Your task to perform on an android device: Show me productivity apps on the Play Store Image 0: 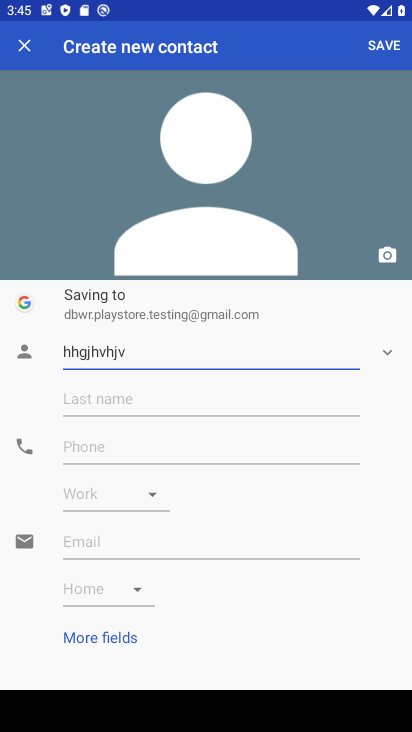
Step 0: press home button
Your task to perform on an android device: Show me productivity apps on the Play Store Image 1: 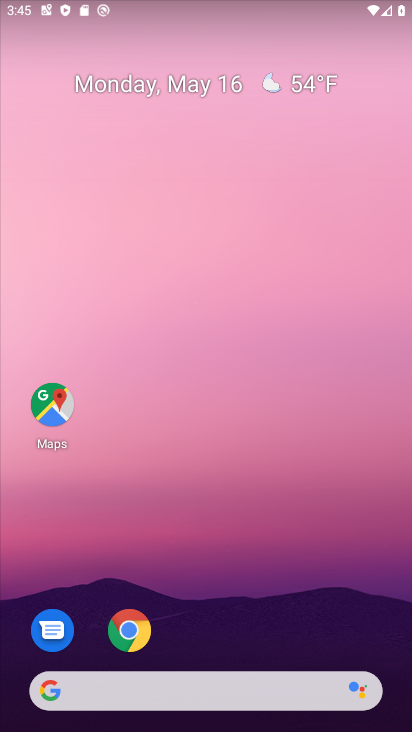
Step 1: drag from (225, 637) to (253, 128)
Your task to perform on an android device: Show me productivity apps on the Play Store Image 2: 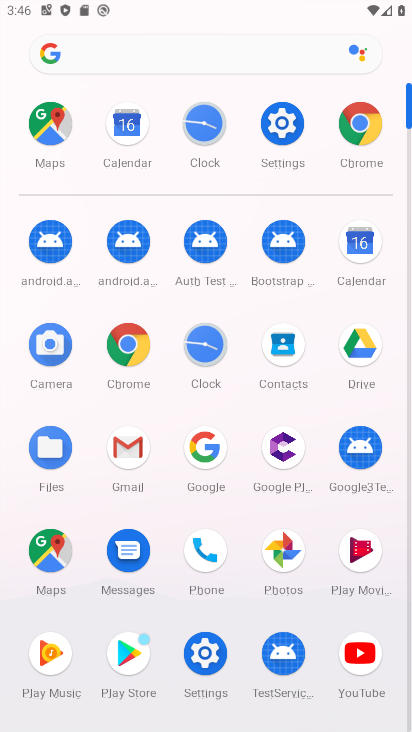
Step 2: click (125, 644)
Your task to perform on an android device: Show me productivity apps on the Play Store Image 3: 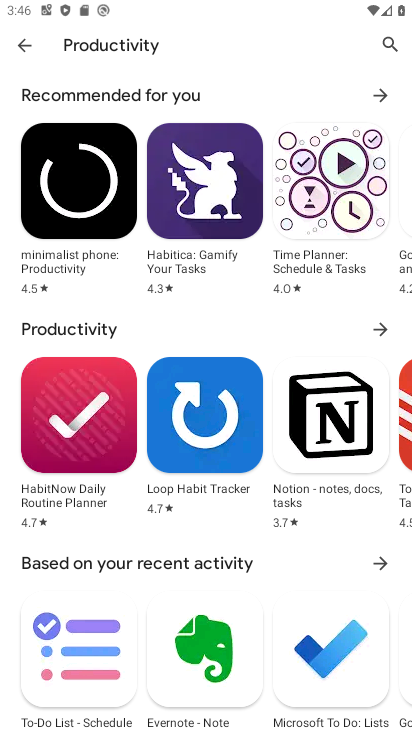
Step 3: task complete